Your task to perform on an android device: change the upload size in google photos Image 0: 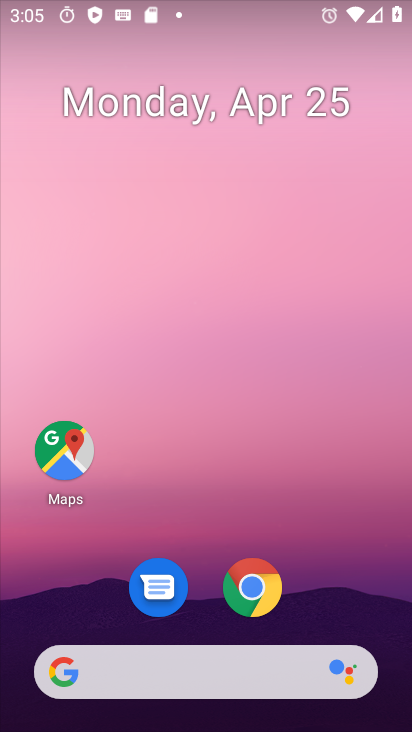
Step 0: drag from (330, 534) to (310, 148)
Your task to perform on an android device: change the upload size in google photos Image 1: 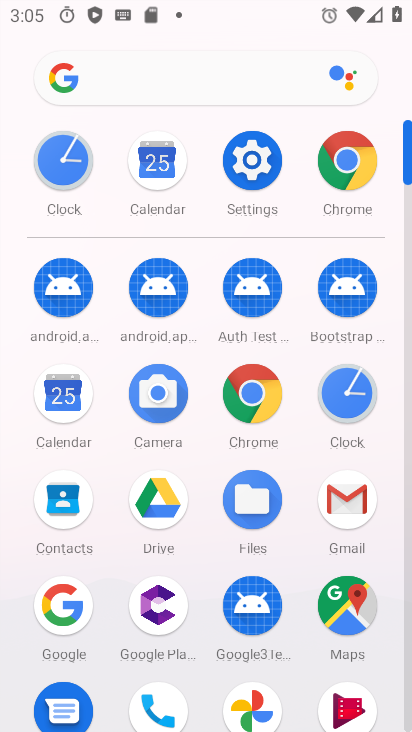
Step 1: drag from (301, 562) to (340, 123)
Your task to perform on an android device: change the upload size in google photos Image 2: 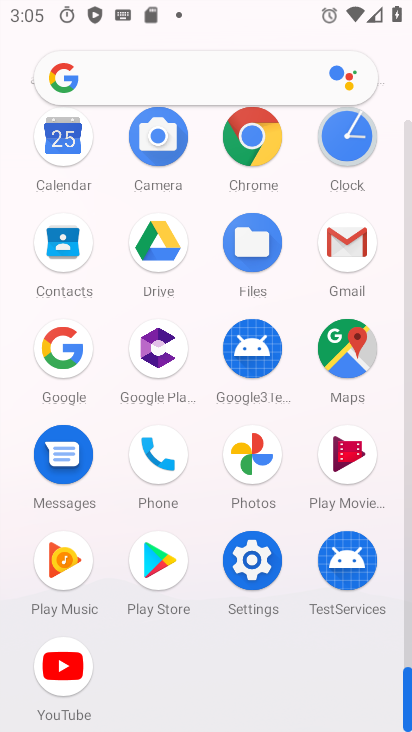
Step 2: click (265, 446)
Your task to perform on an android device: change the upload size in google photos Image 3: 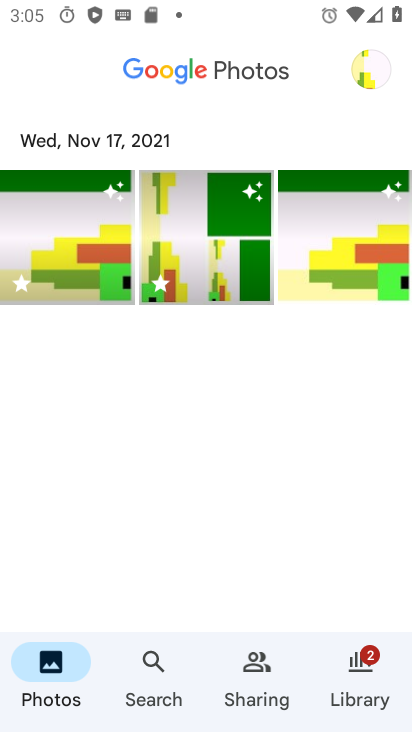
Step 3: click (381, 62)
Your task to perform on an android device: change the upload size in google photos Image 4: 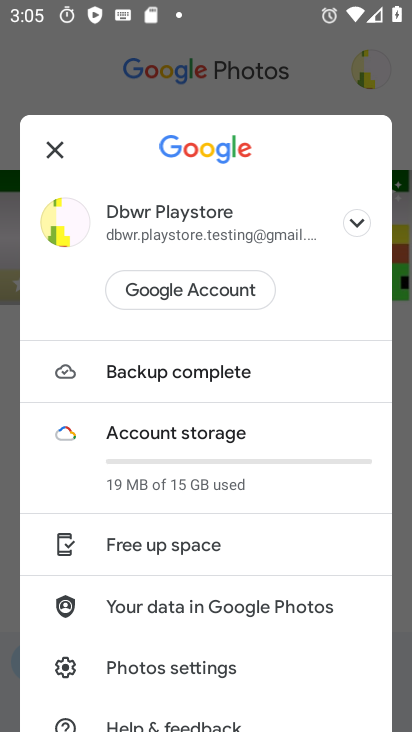
Step 4: drag from (187, 575) to (261, 252)
Your task to perform on an android device: change the upload size in google photos Image 5: 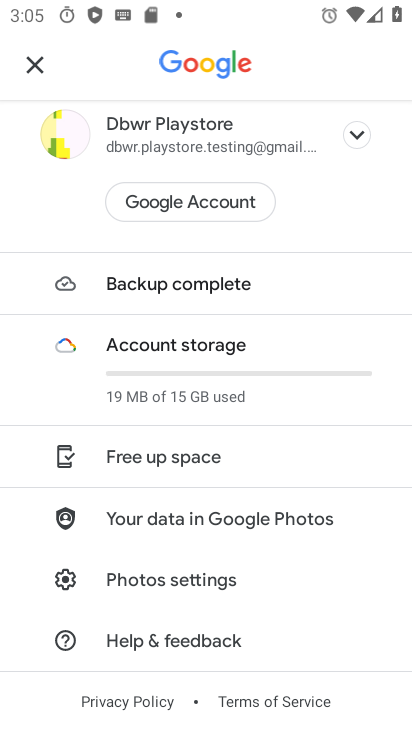
Step 5: click (167, 586)
Your task to perform on an android device: change the upload size in google photos Image 6: 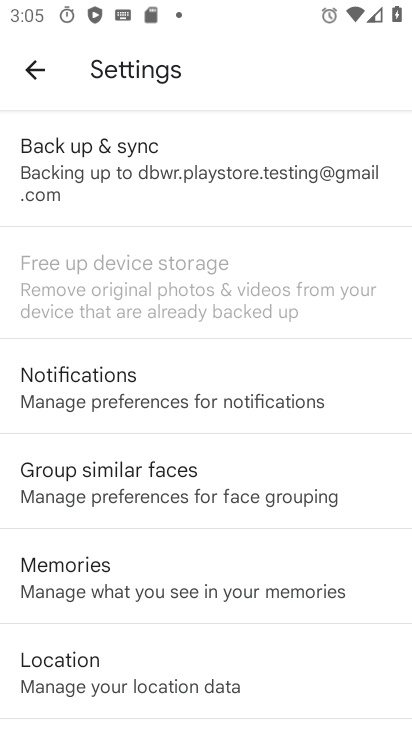
Step 6: drag from (304, 612) to (294, 169)
Your task to perform on an android device: change the upload size in google photos Image 7: 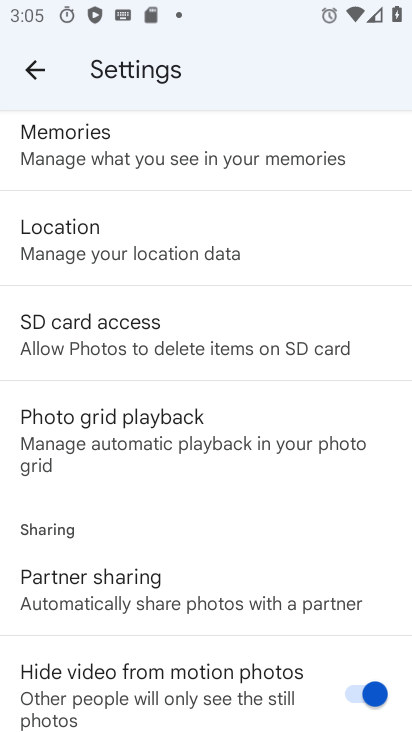
Step 7: drag from (269, 194) to (239, 725)
Your task to perform on an android device: change the upload size in google photos Image 8: 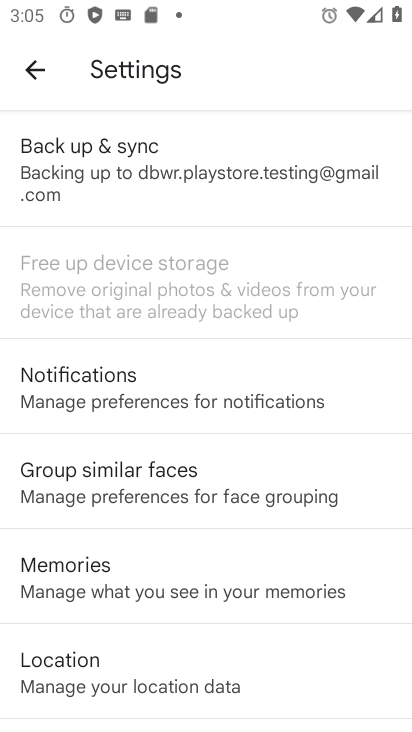
Step 8: drag from (266, 173) to (233, 569)
Your task to perform on an android device: change the upload size in google photos Image 9: 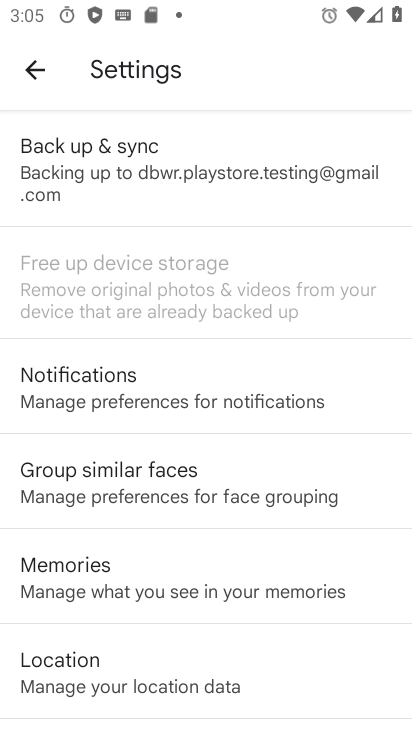
Step 9: click (232, 174)
Your task to perform on an android device: change the upload size in google photos Image 10: 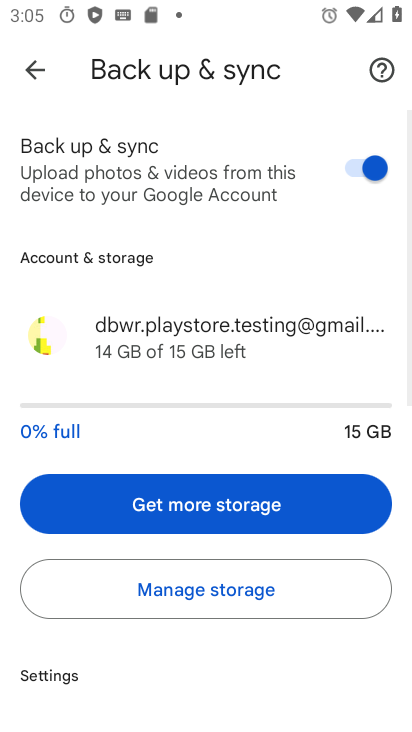
Step 10: drag from (257, 624) to (230, 83)
Your task to perform on an android device: change the upload size in google photos Image 11: 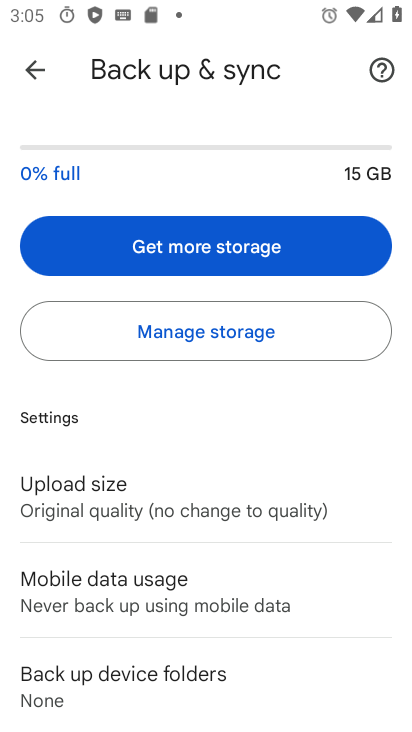
Step 11: drag from (282, 496) to (267, 216)
Your task to perform on an android device: change the upload size in google photos Image 12: 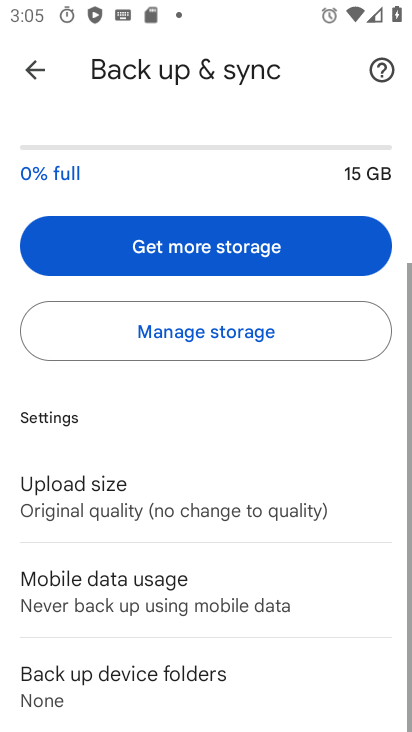
Step 12: click (187, 488)
Your task to perform on an android device: change the upload size in google photos Image 13: 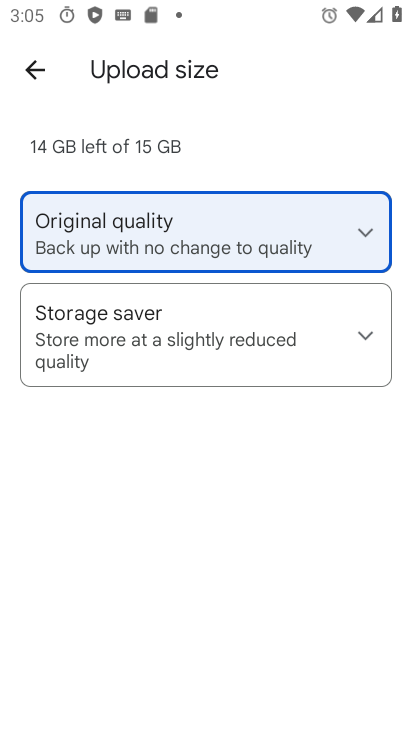
Step 13: click (288, 339)
Your task to perform on an android device: change the upload size in google photos Image 14: 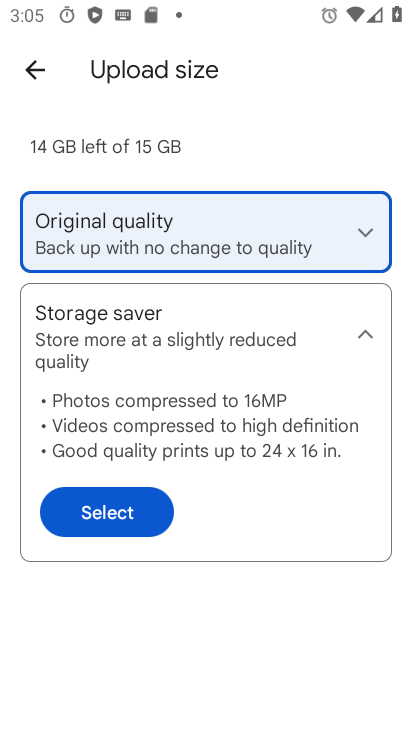
Step 14: click (122, 541)
Your task to perform on an android device: change the upload size in google photos Image 15: 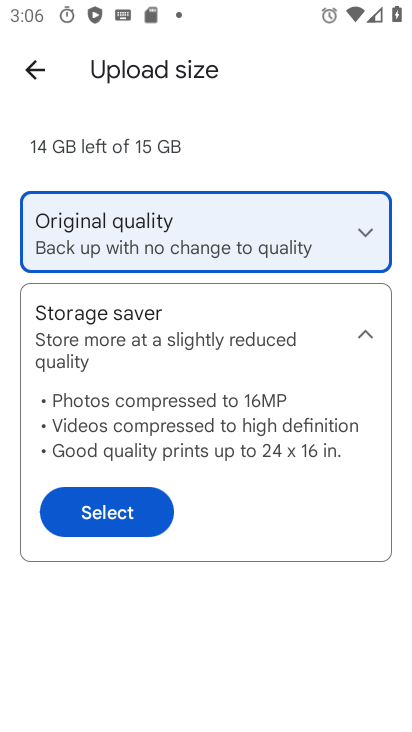
Step 15: click (131, 513)
Your task to perform on an android device: change the upload size in google photos Image 16: 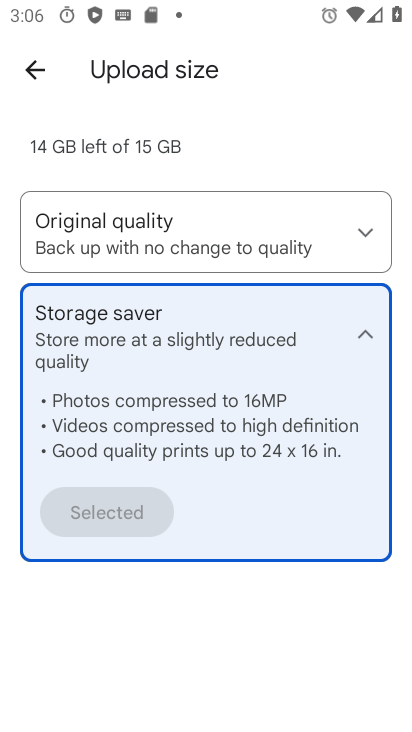
Step 16: task complete